Your task to perform on an android device: find which apps use the phone's location Image 0: 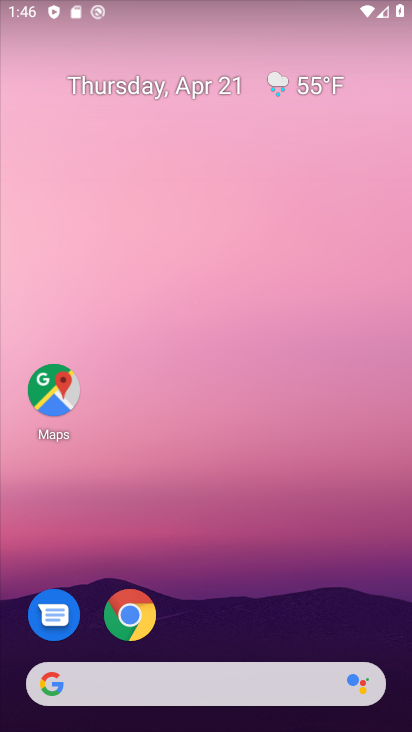
Step 0: drag from (199, 656) to (242, 374)
Your task to perform on an android device: find which apps use the phone's location Image 1: 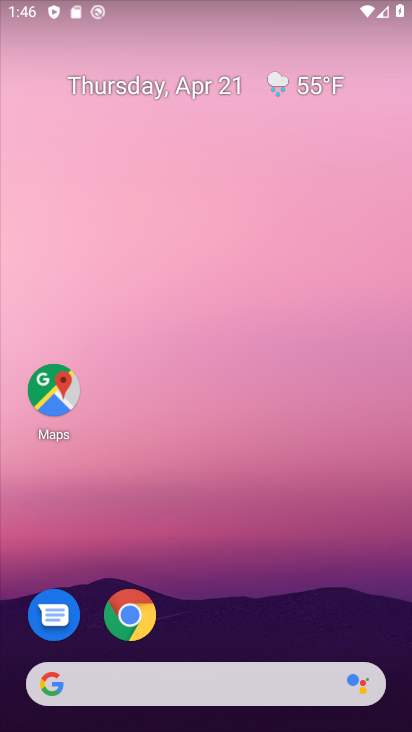
Step 1: drag from (222, 661) to (279, 297)
Your task to perform on an android device: find which apps use the phone's location Image 2: 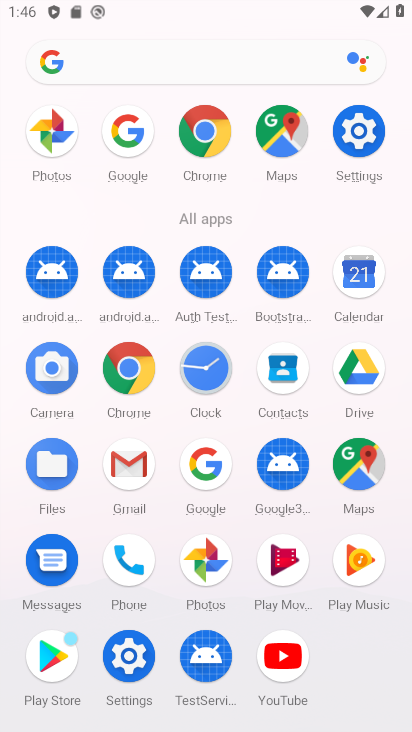
Step 2: click (357, 130)
Your task to perform on an android device: find which apps use the phone's location Image 3: 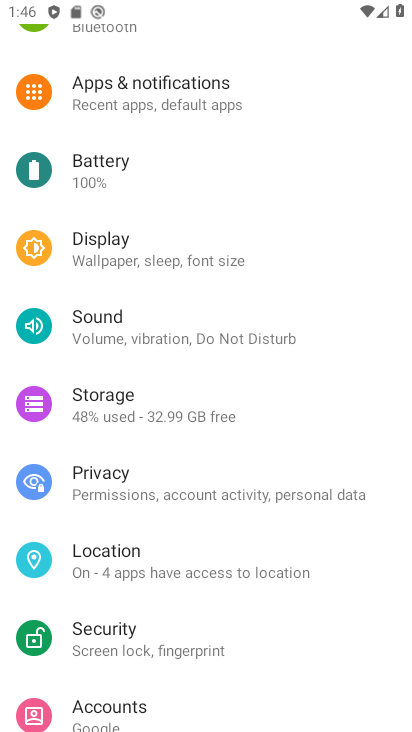
Step 3: click (138, 566)
Your task to perform on an android device: find which apps use the phone's location Image 4: 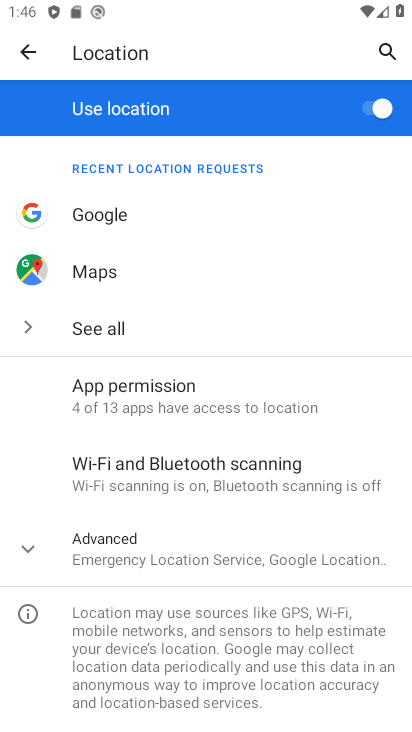
Step 4: click (131, 398)
Your task to perform on an android device: find which apps use the phone's location Image 5: 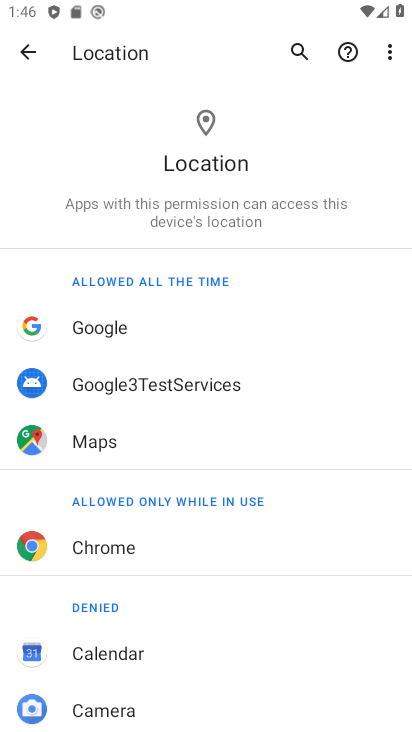
Step 5: task complete